Your task to perform on an android device: Go to Android settings Image 0: 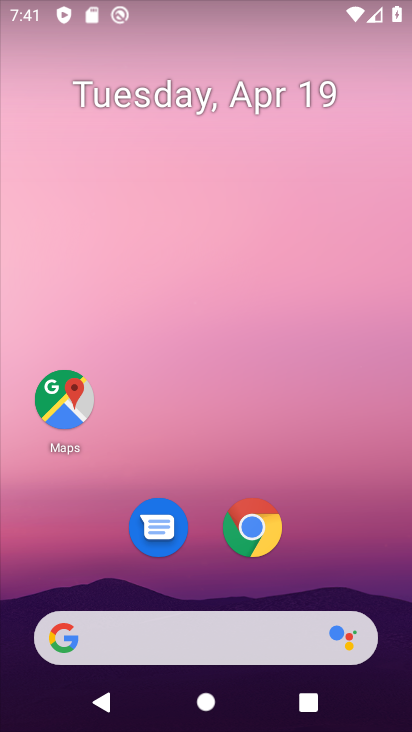
Step 0: drag from (378, 564) to (346, 163)
Your task to perform on an android device: Go to Android settings Image 1: 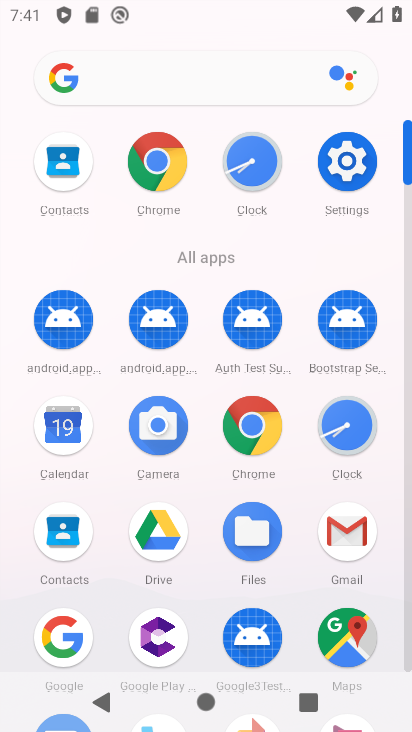
Step 1: click (353, 174)
Your task to perform on an android device: Go to Android settings Image 2: 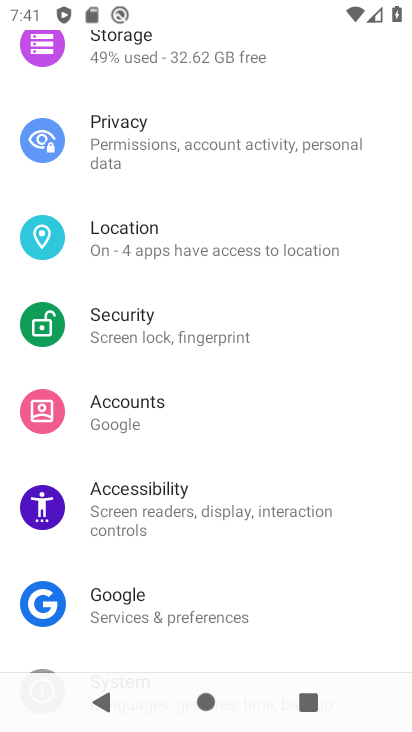
Step 2: drag from (274, 576) to (267, 151)
Your task to perform on an android device: Go to Android settings Image 3: 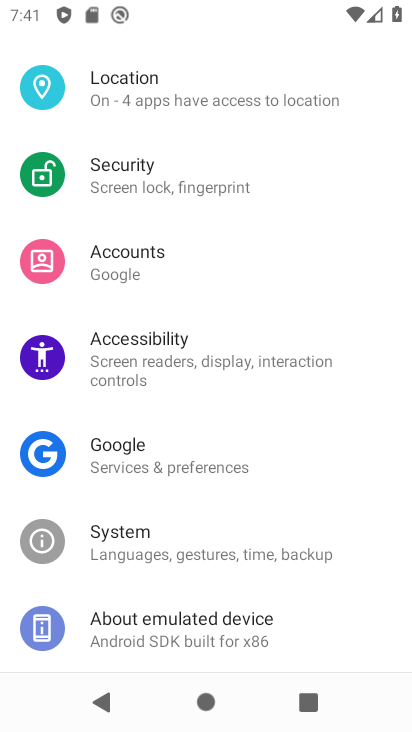
Step 3: click (228, 634)
Your task to perform on an android device: Go to Android settings Image 4: 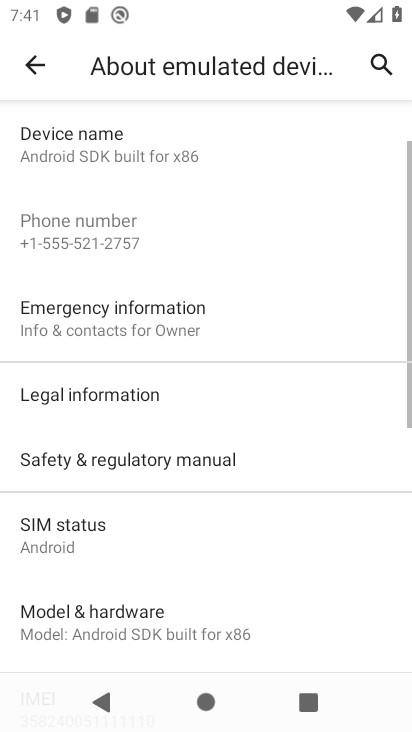
Step 4: drag from (293, 524) to (299, 185)
Your task to perform on an android device: Go to Android settings Image 5: 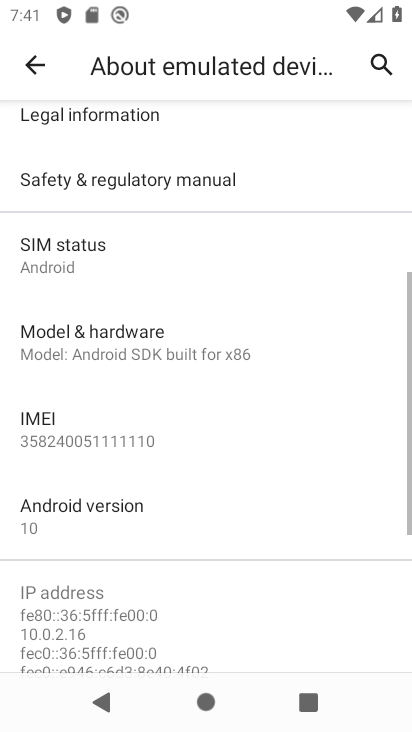
Step 5: click (178, 513)
Your task to perform on an android device: Go to Android settings Image 6: 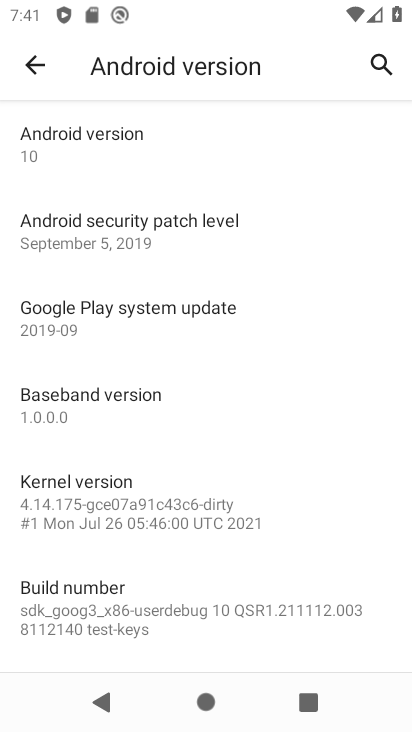
Step 6: task complete